Your task to perform on an android device: Install the Reddit app Image 0: 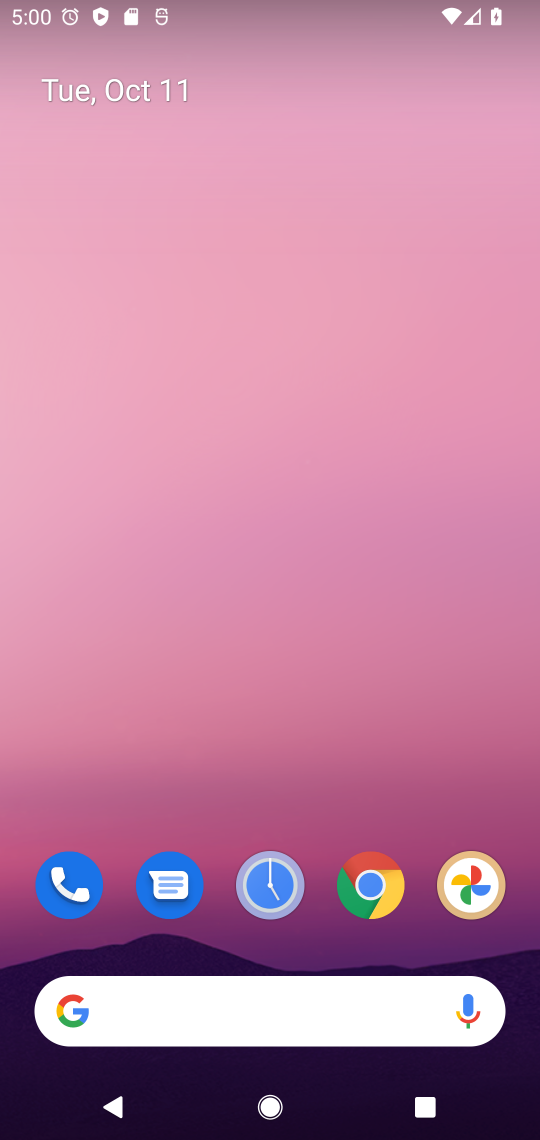
Step 0: click (374, 880)
Your task to perform on an android device: Install the Reddit app Image 1: 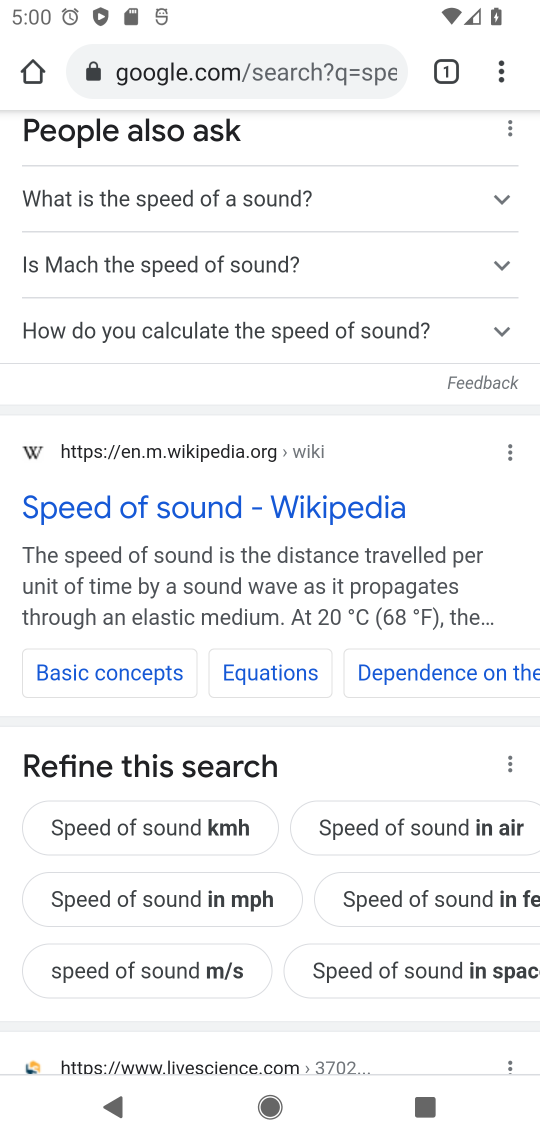
Step 1: click (270, 95)
Your task to perform on an android device: Install the Reddit app Image 2: 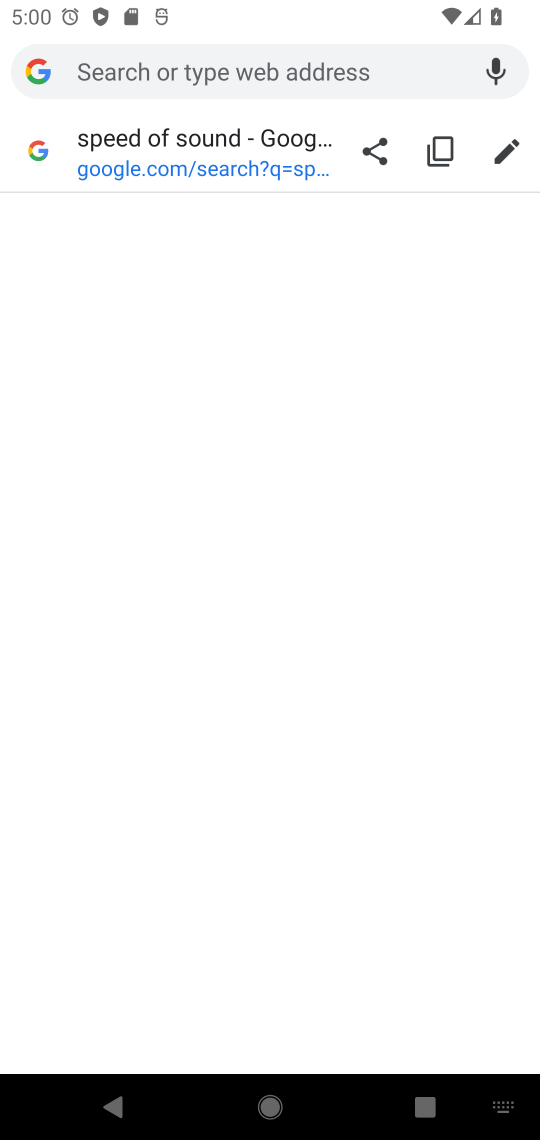
Step 2: press home button
Your task to perform on an android device: Install the Reddit app Image 3: 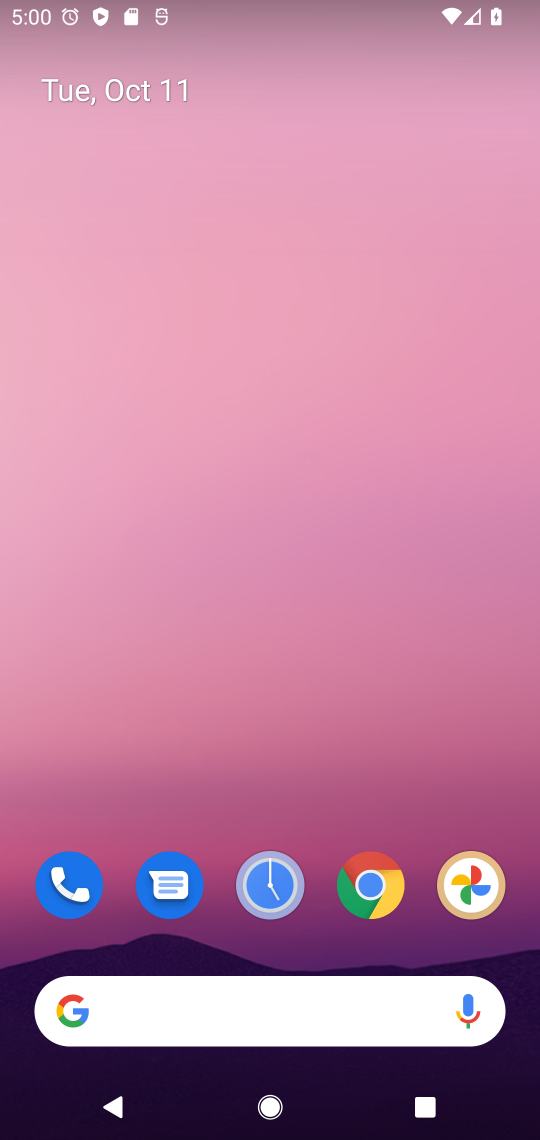
Step 3: drag from (408, 828) to (374, 200)
Your task to perform on an android device: Install the Reddit app Image 4: 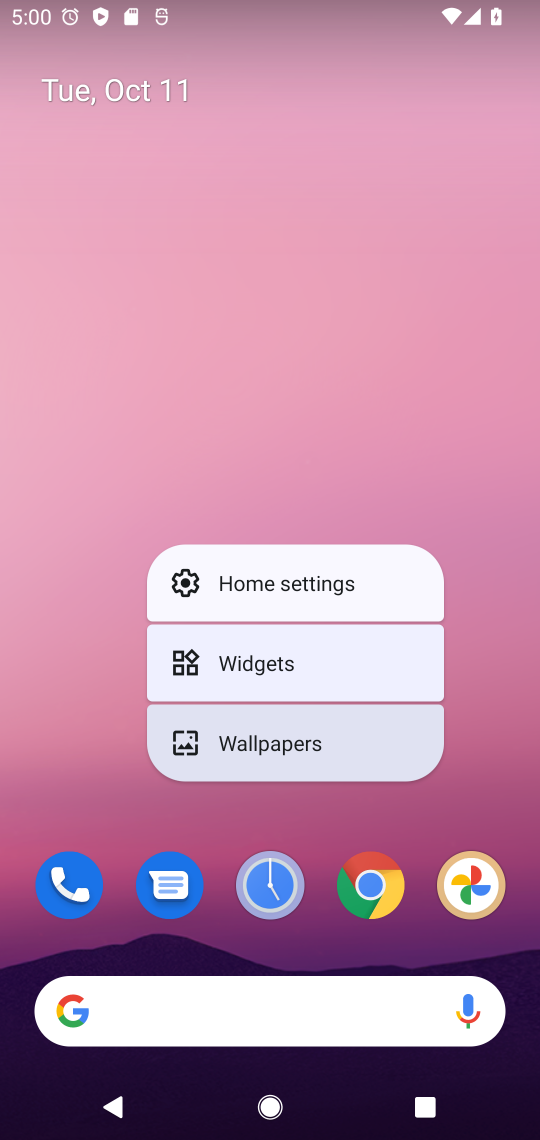
Step 4: click (473, 591)
Your task to perform on an android device: Install the Reddit app Image 5: 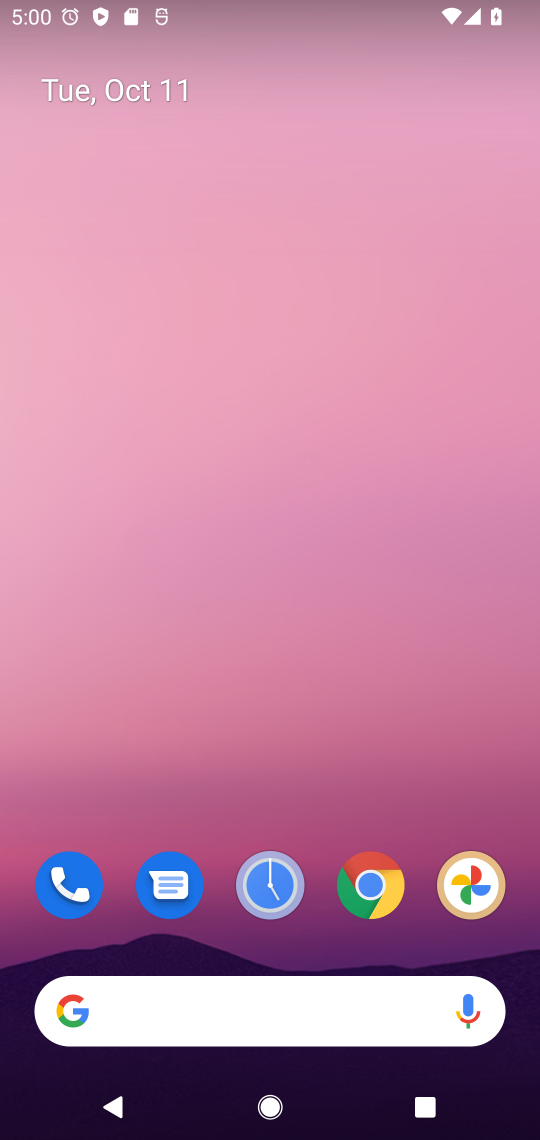
Step 5: drag from (379, 794) to (418, 176)
Your task to perform on an android device: Install the Reddit app Image 6: 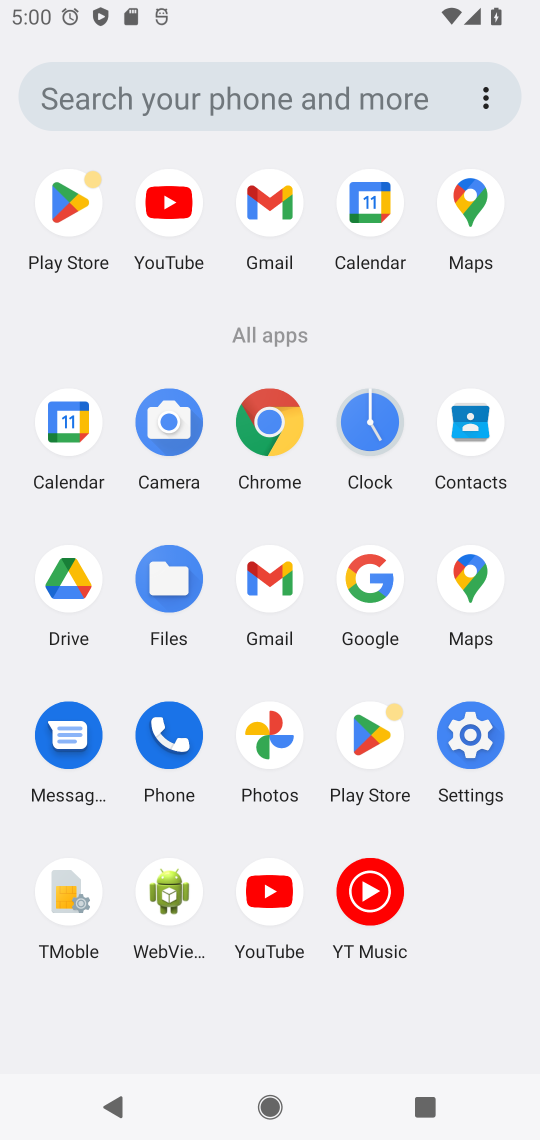
Step 6: click (368, 734)
Your task to perform on an android device: Install the Reddit app Image 7: 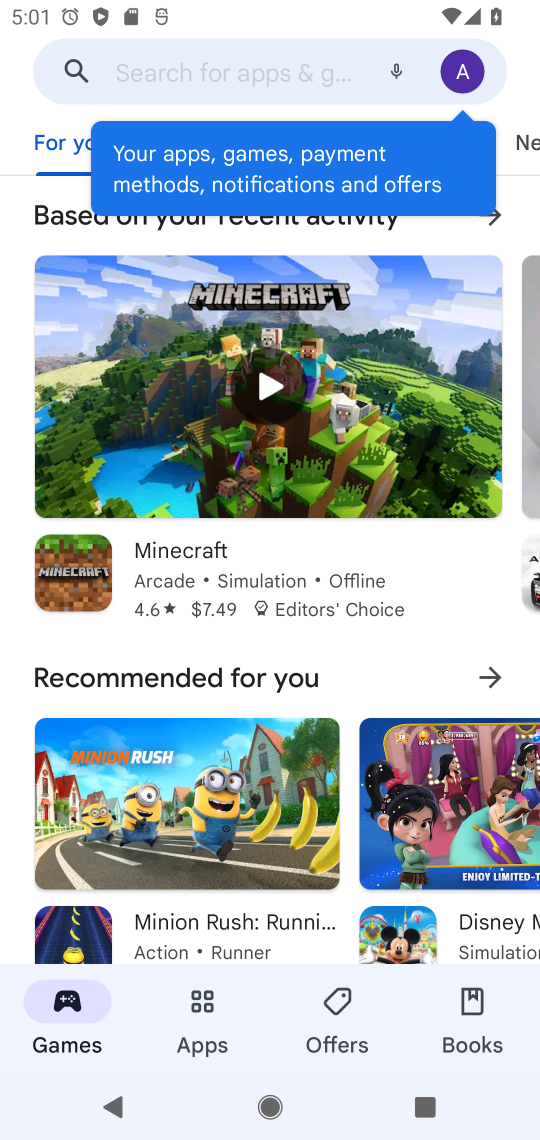
Step 7: click (231, 78)
Your task to perform on an android device: Install the Reddit app Image 8: 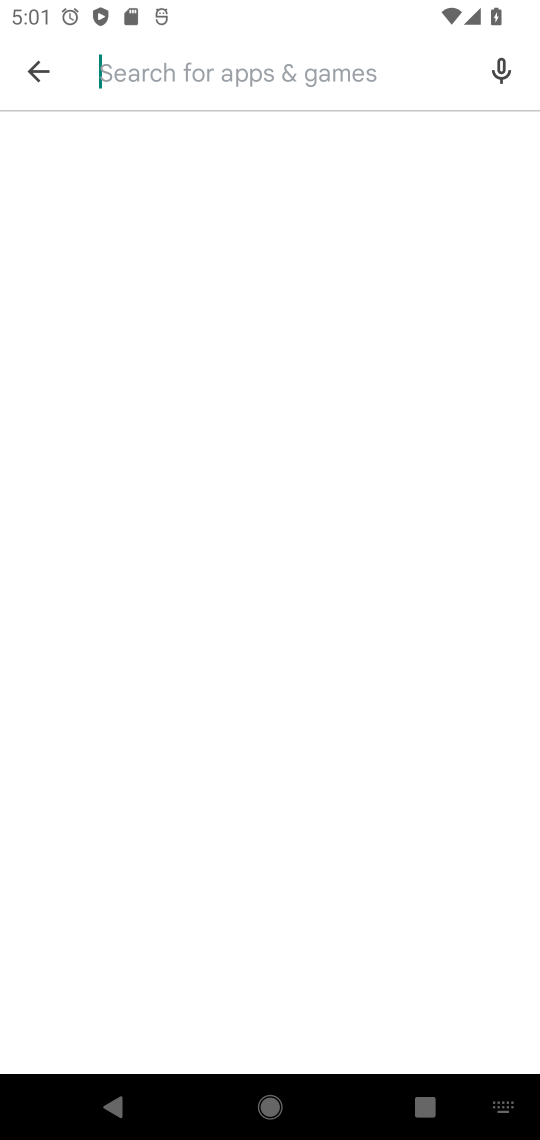
Step 8: type "reddit"
Your task to perform on an android device: Install the Reddit app Image 9: 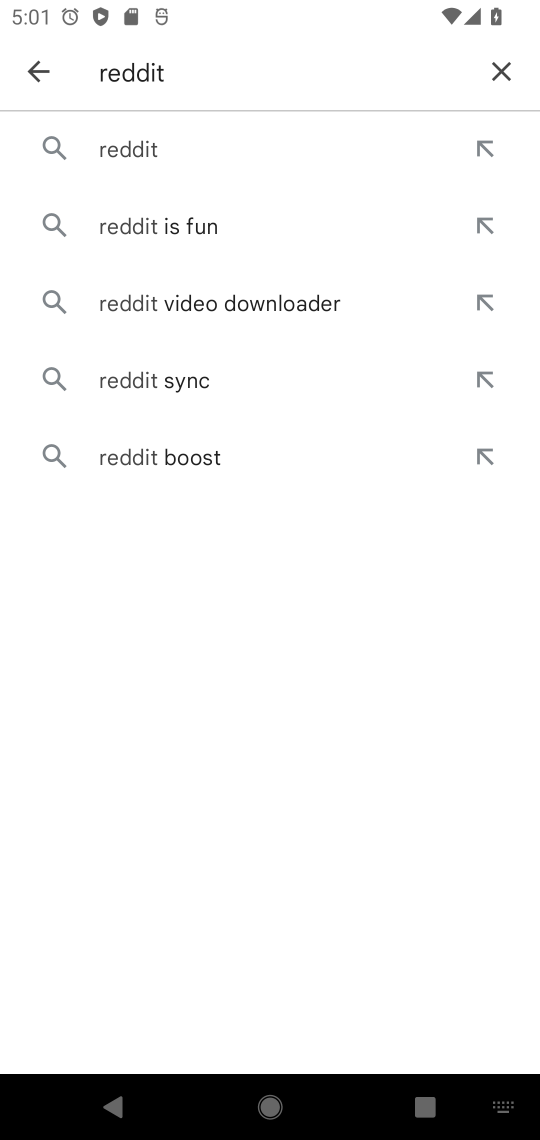
Step 9: click (159, 140)
Your task to perform on an android device: Install the Reddit app Image 10: 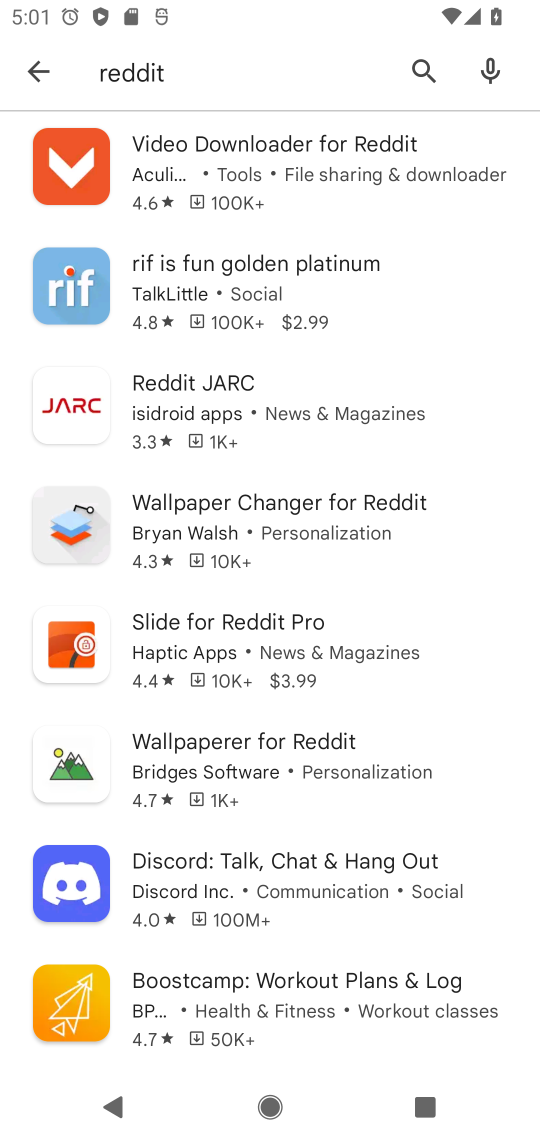
Step 10: task complete